Your task to perform on an android device: Add "lenovo thinkpad" to the cart on amazon Image 0: 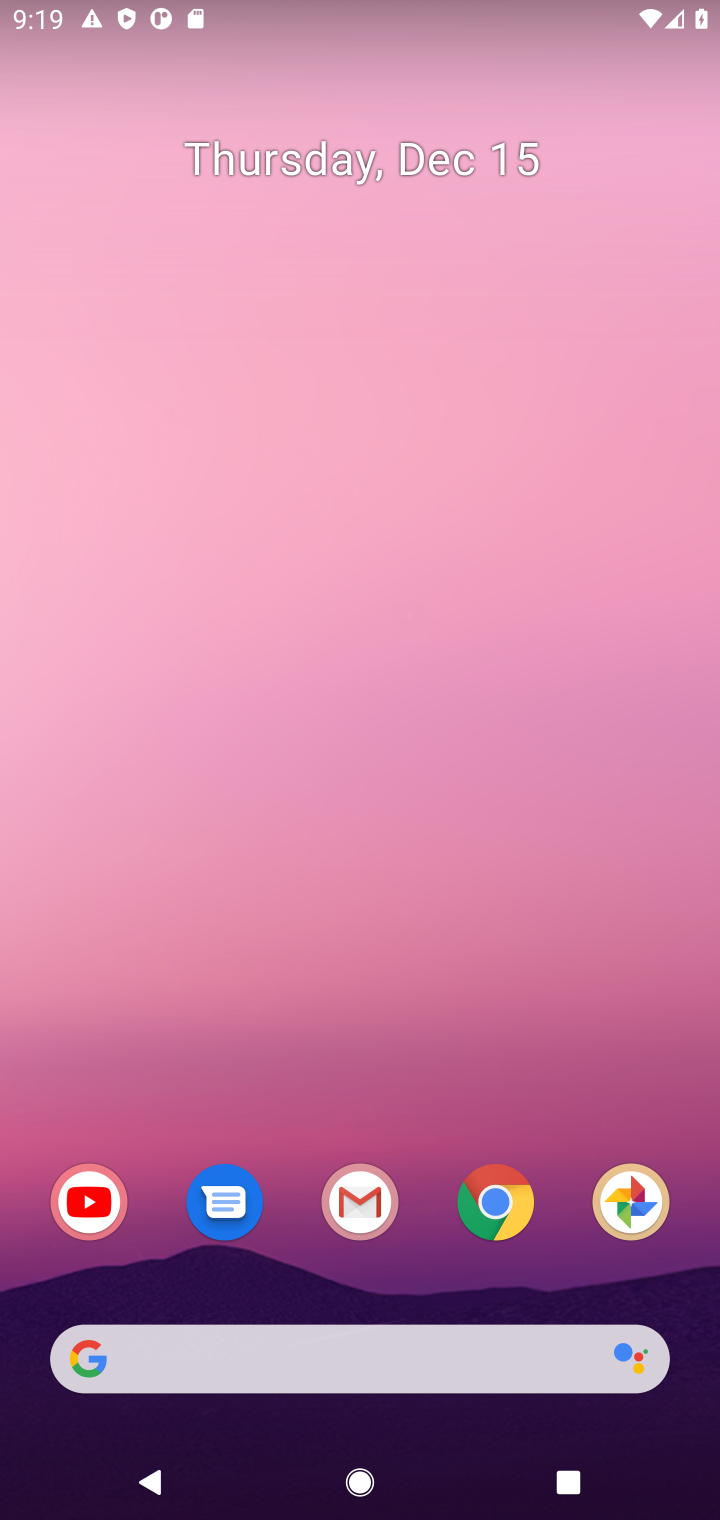
Step 0: click (490, 1210)
Your task to perform on an android device: Add "lenovo thinkpad" to the cart on amazon Image 1: 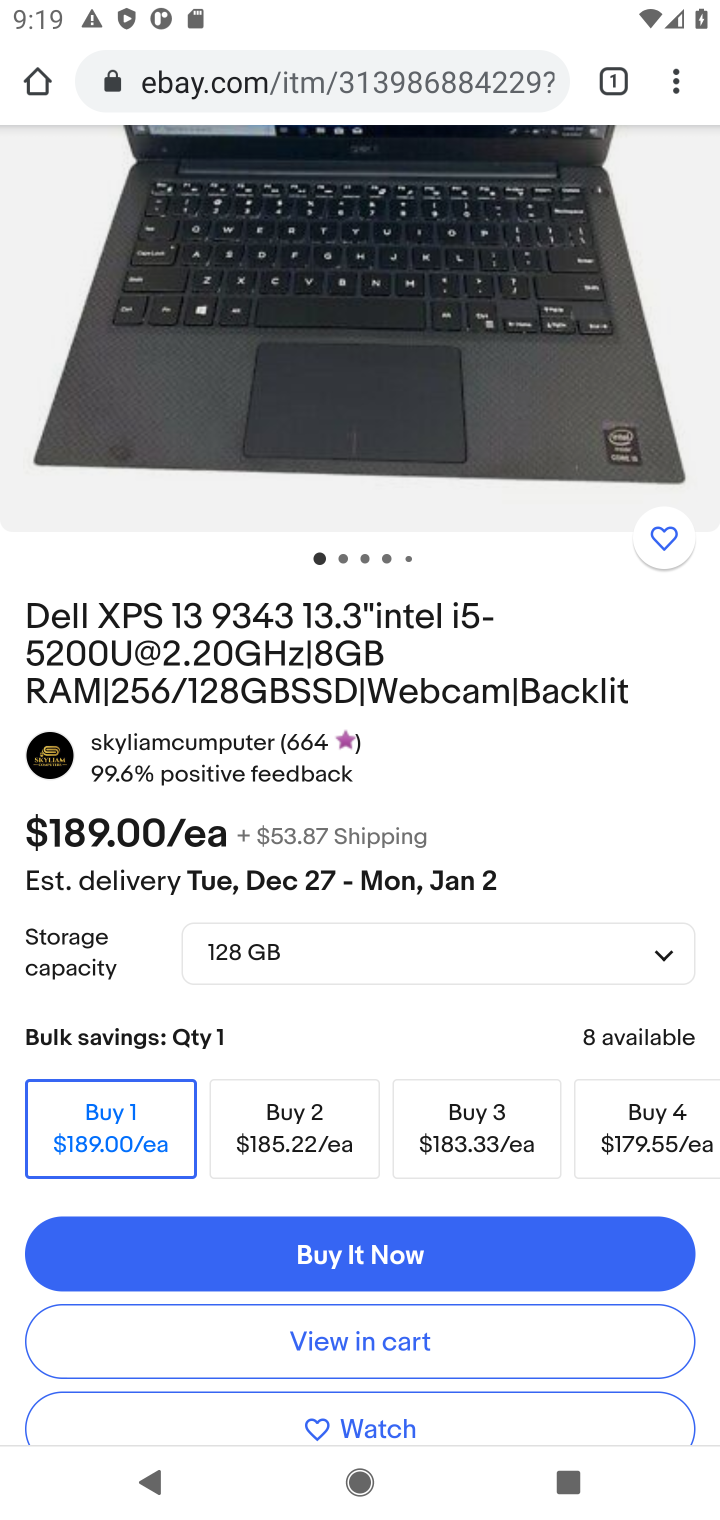
Step 1: click (312, 89)
Your task to perform on an android device: Add "lenovo thinkpad" to the cart on amazon Image 2: 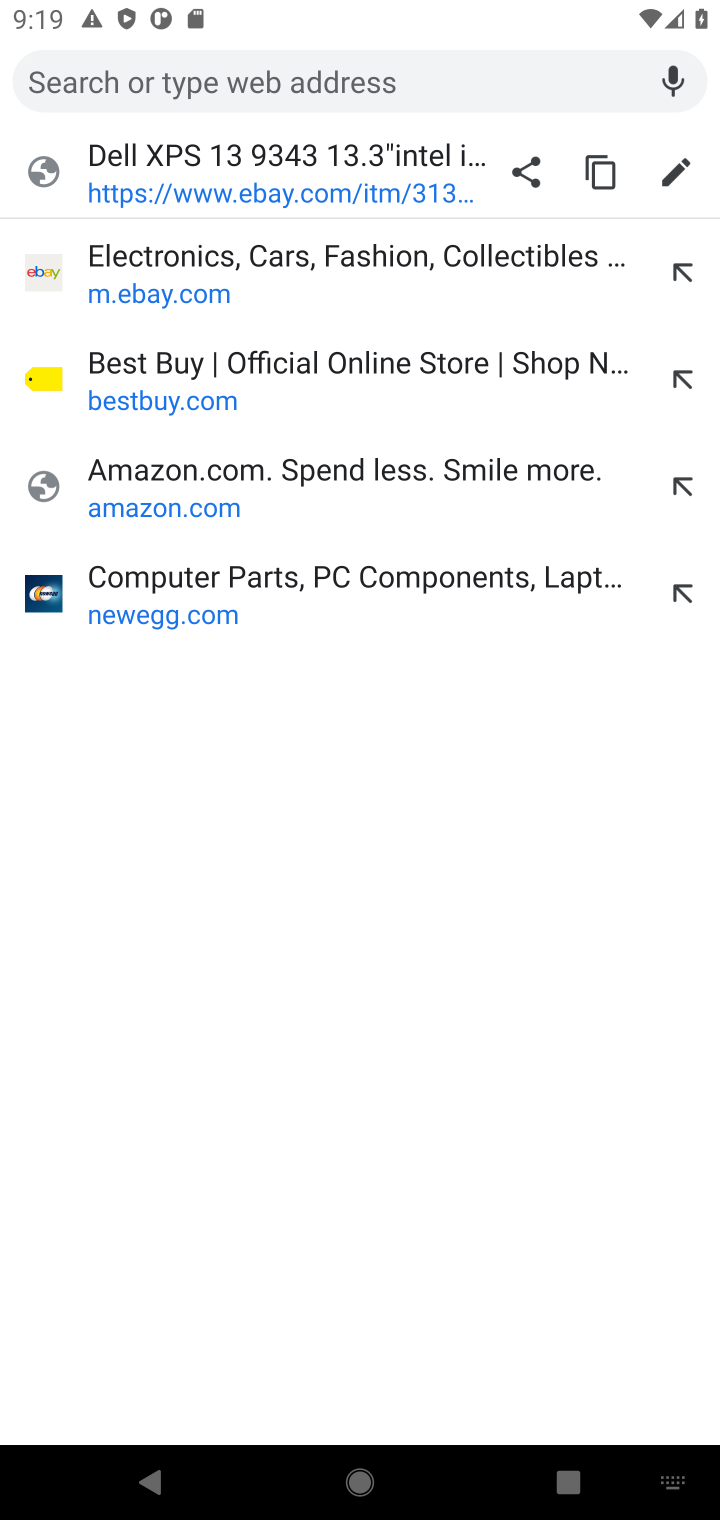
Step 2: click (157, 473)
Your task to perform on an android device: Add "lenovo thinkpad" to the cart on amazon Image 3: 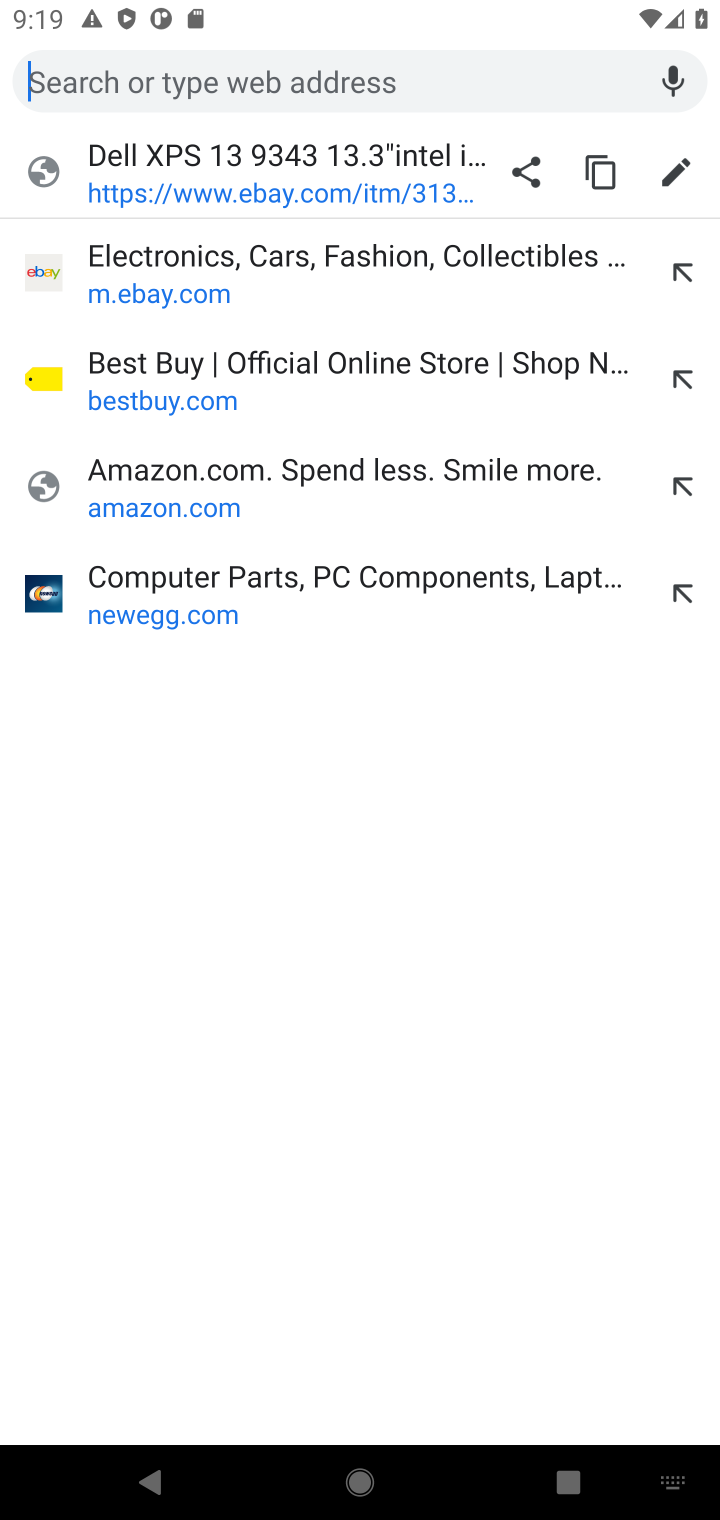
Step 3: click (281, 84)
Your task to perform on an android device: Add "lenovo thinkpad" to the cart on amazon Image 4: 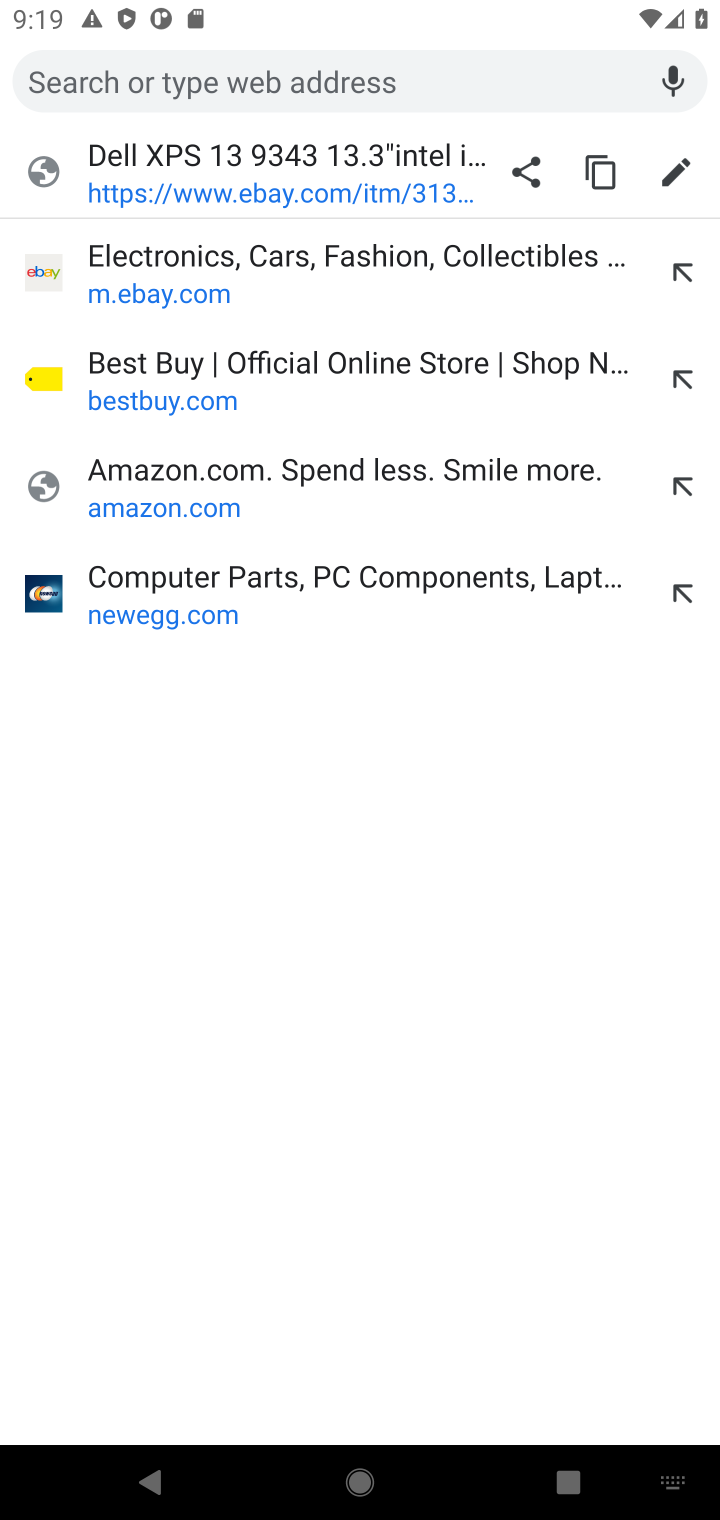
Step 4: click (124, 490)
Your task to perform on an android device: Add "lenovo thinkpad" to the cart on amazon Image 5: 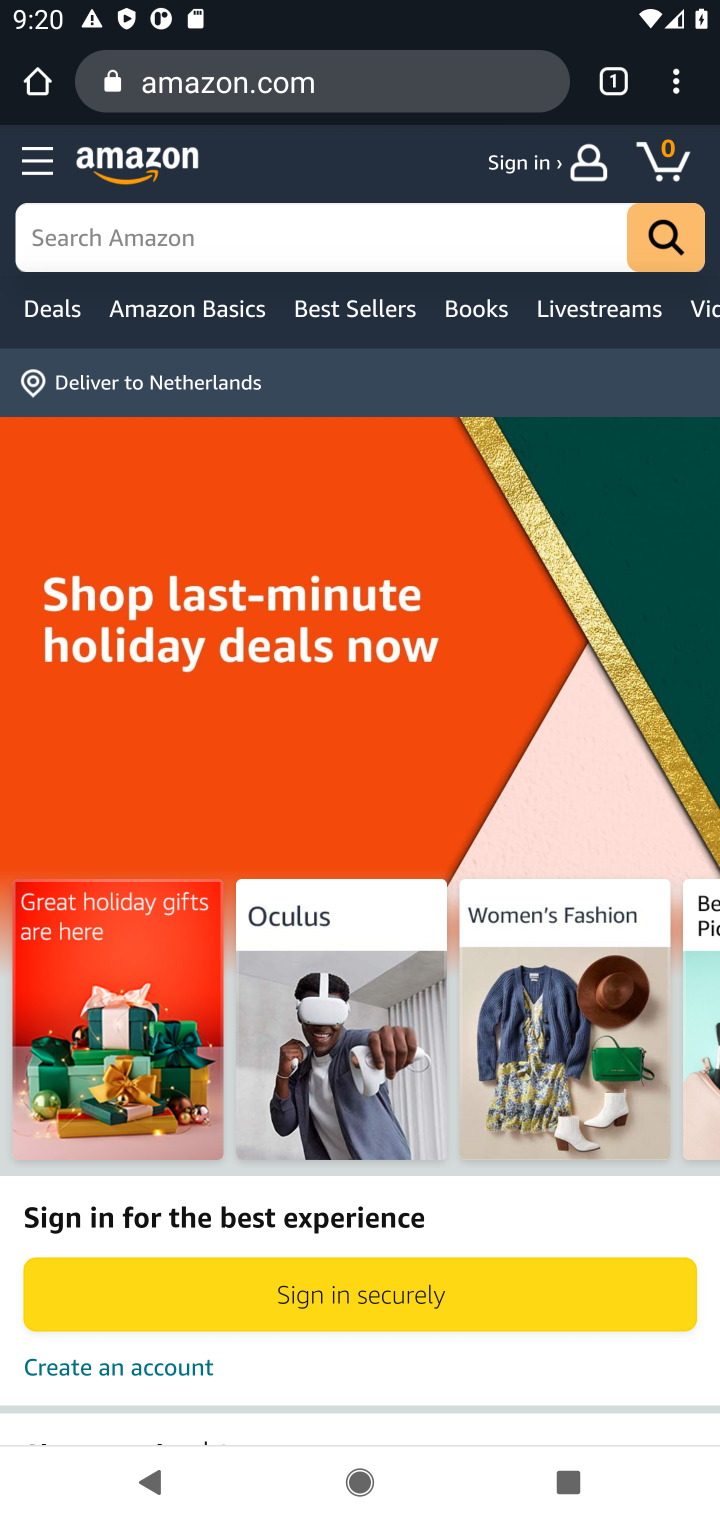
Step 5: click (180, 207)
Your task to perform on an android device: Add "lenovo thinkpad" to the cart on amazon Image 6: 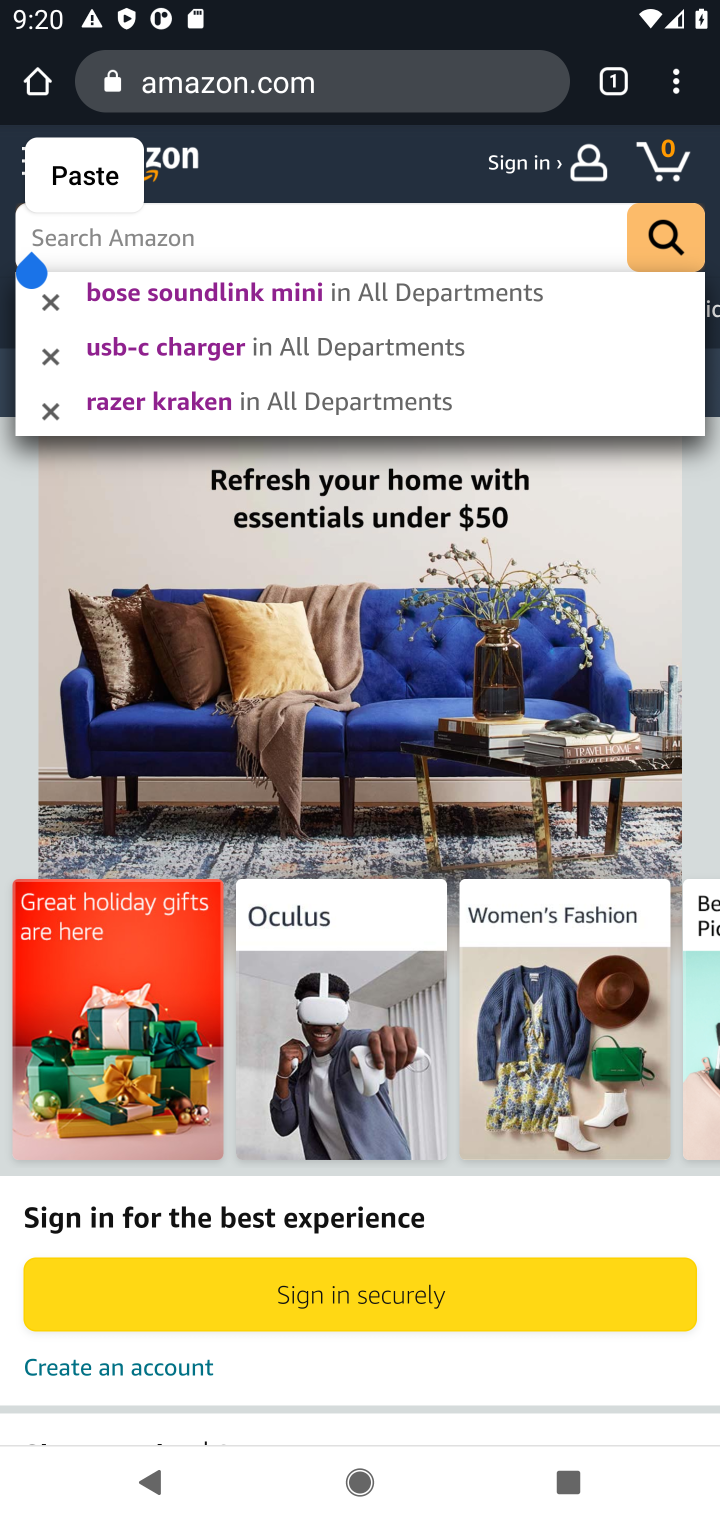
Step 6: type "lenovo thinkpad"
Your task to perform on an android device: Add "lenovo thinkpad" to the cart on amazon Image 7: 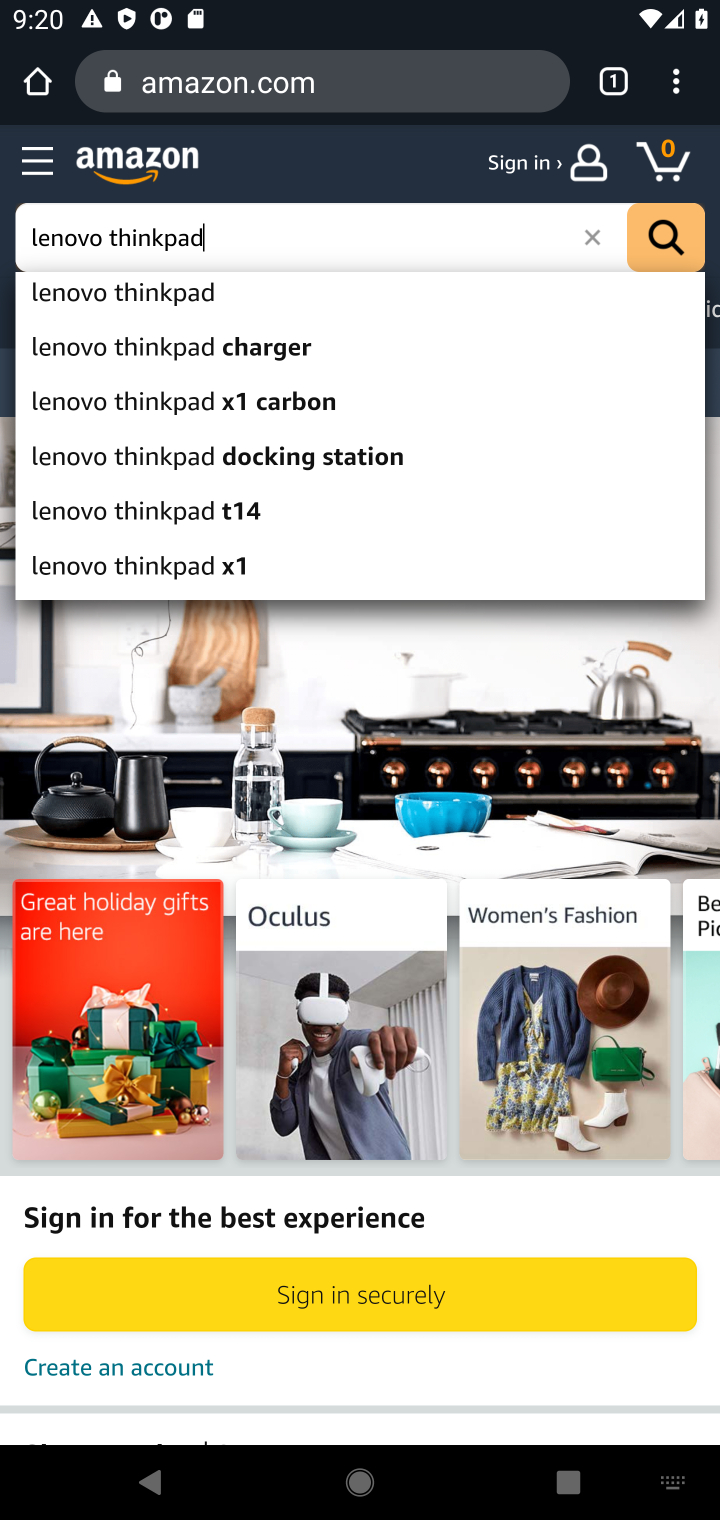
Step 7: click (143, 305)
Your task to perform on an android device: Add "lenovo thinkpad" to the cart on amazon Image 8: 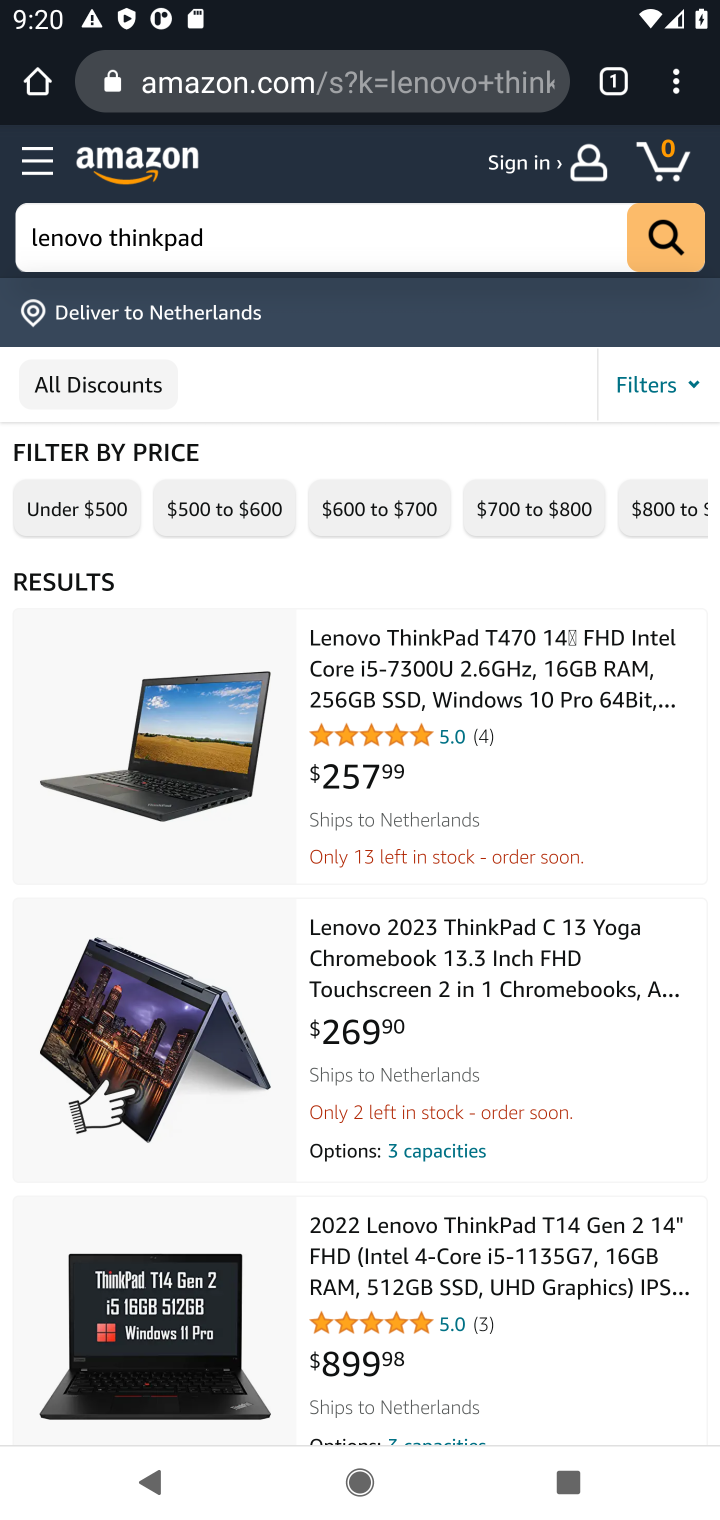
Step 8: click (388, 684)
Your task to perform on an android device: Add "lenovo thinkpad" to the cart on amazon Image 9: 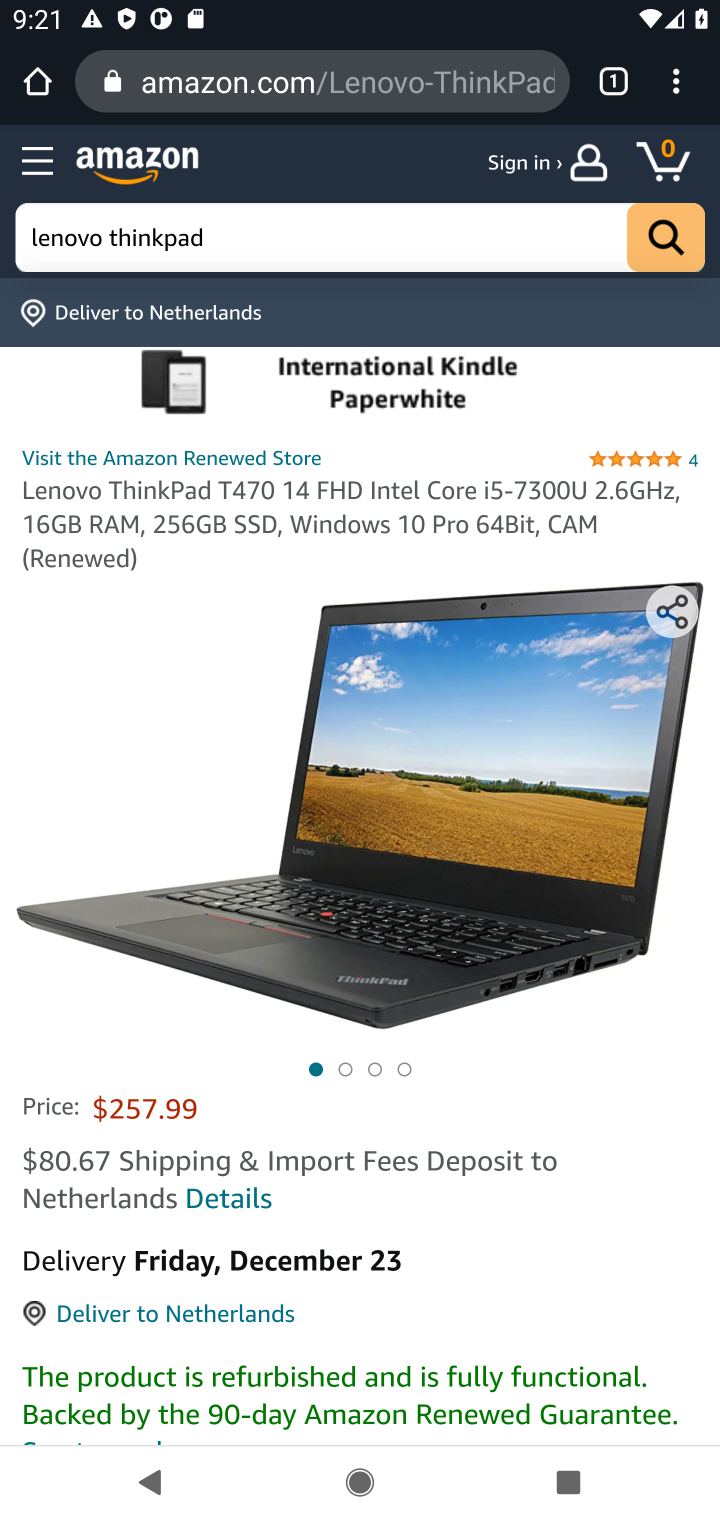
Step 9: drag from (362, 1174) to (361, 812)
Your task to perform on an android device: Add "lenovo thinkpad" to the cart on amazon Image 10: 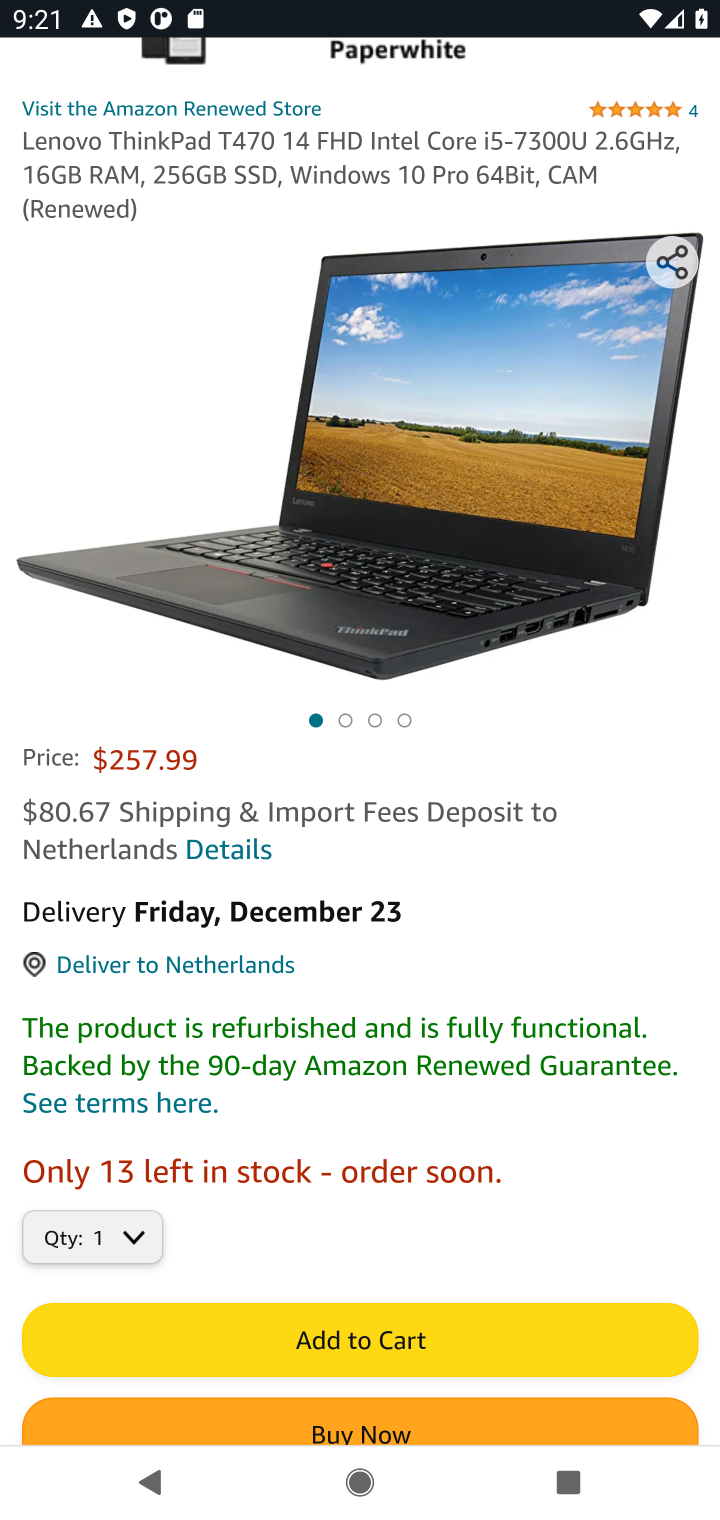
Step 10: click (358, 1324)
Your task to perform on an android device: Add "lenovo thinkpad" to the cart on amazon Image 11: 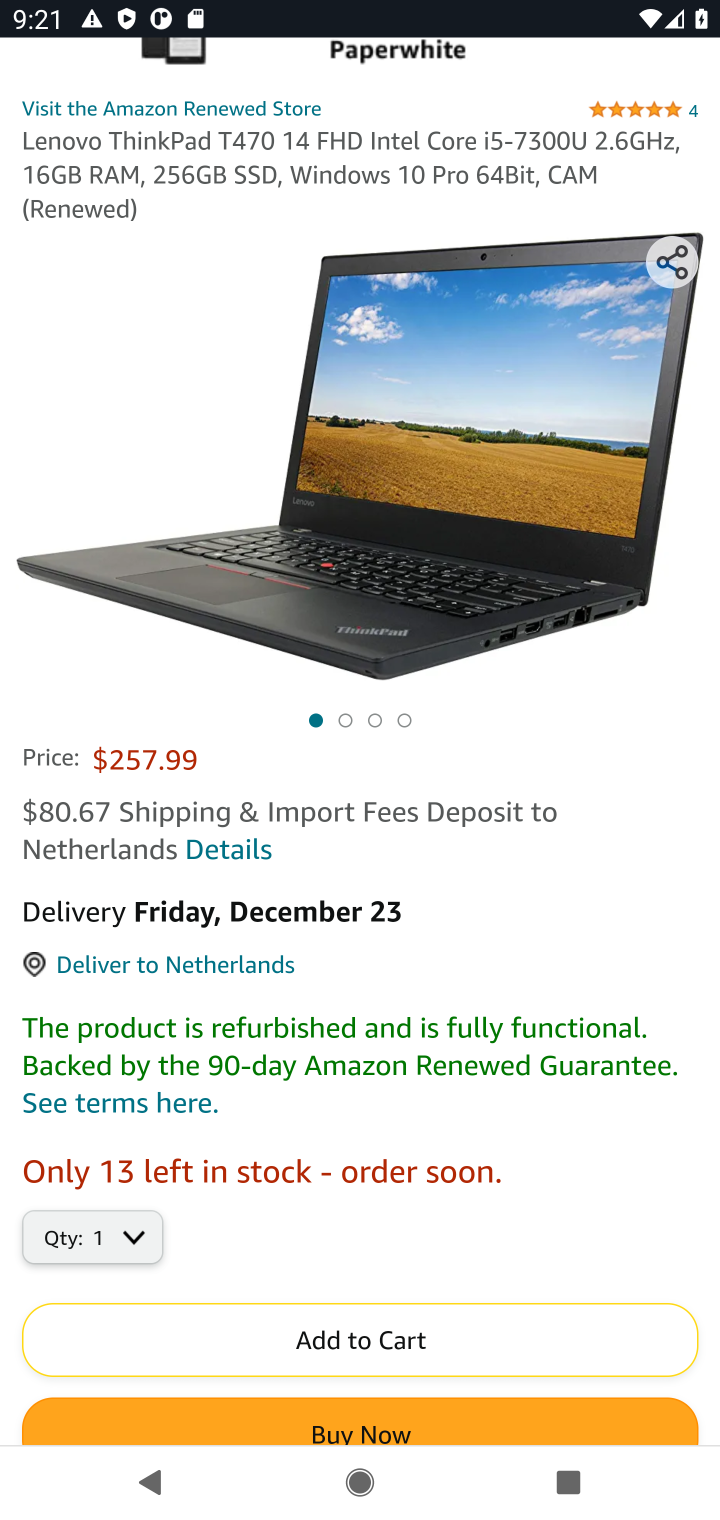
Step 11: click (360, 1335)
Your task to perform on an android device: Add "lenovo thinkpad" to the cart on amazon Image 12: 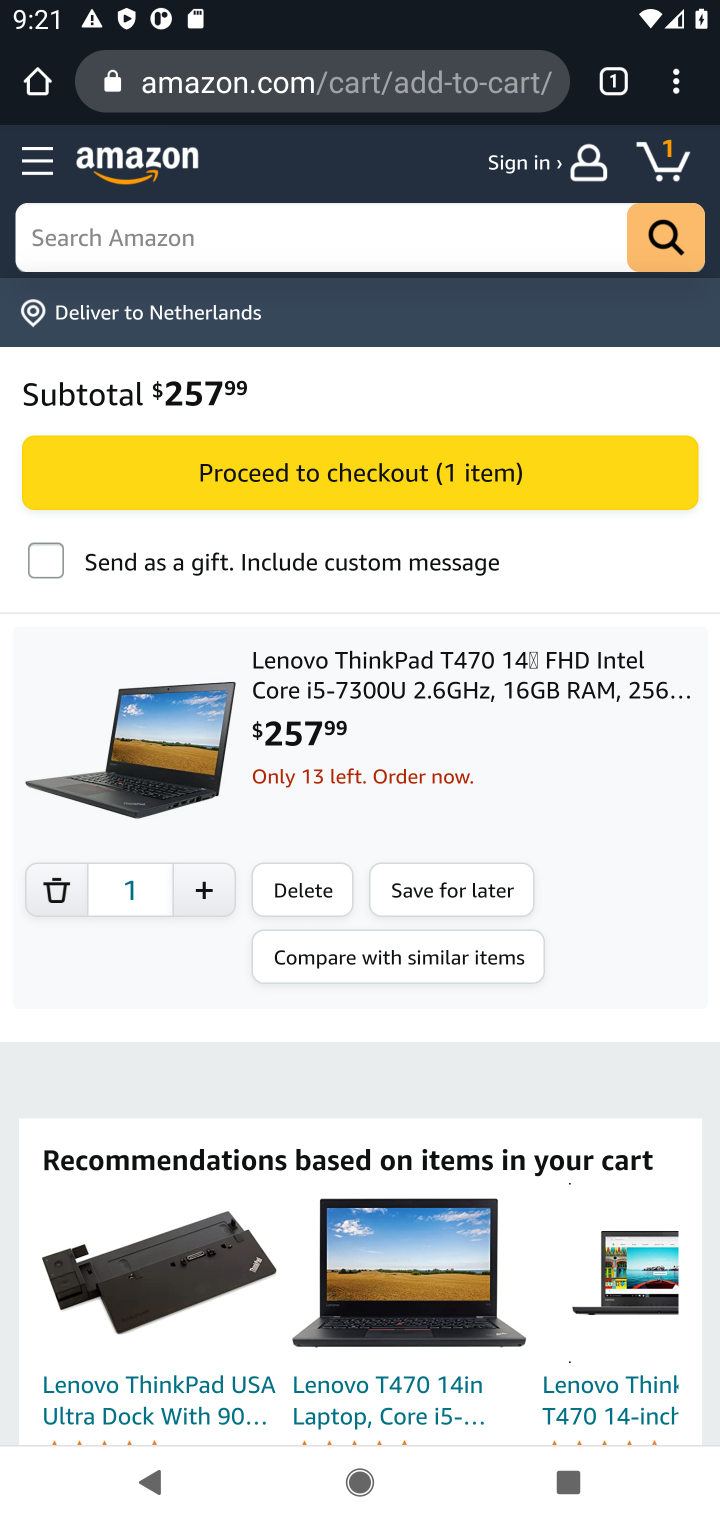
Step 12: task complete